Your task to perform on an android device: What's on my calendar today? Image 0: 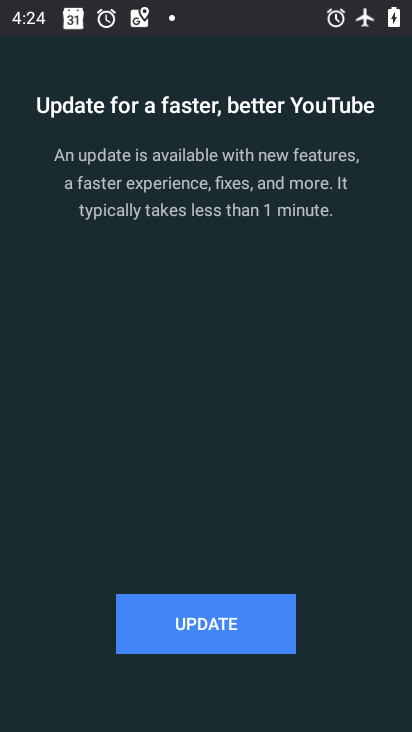
Step 0: press home button
Your task to perform on an android device: What's on my calendar today? Image 1: 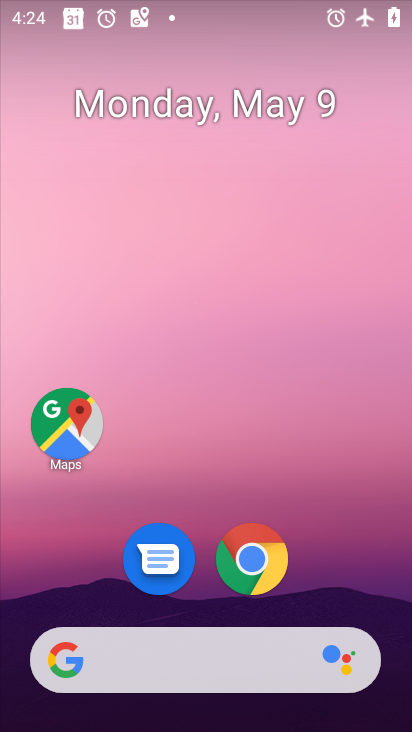
Step 1: drag from (220, 719) to (247, 316)
Your task to perform on an android device: What's on my calendar today? Image 2: 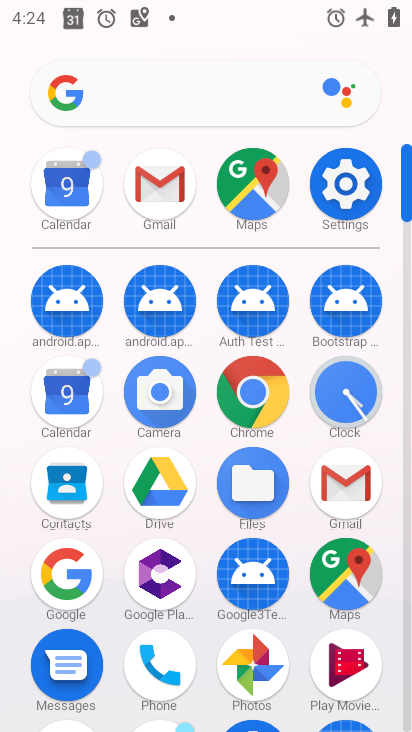
Step 2: click (66, 393)
Your task to perform on an android device: What's on my calendar today? Image 3: 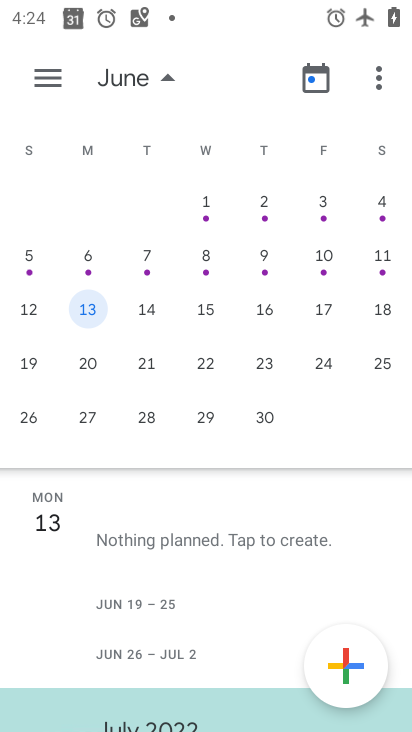
Step 3: drag from (62, 263) to (355, 290)
Your task to perform on an android device: What's on my calendar today? Image 4: 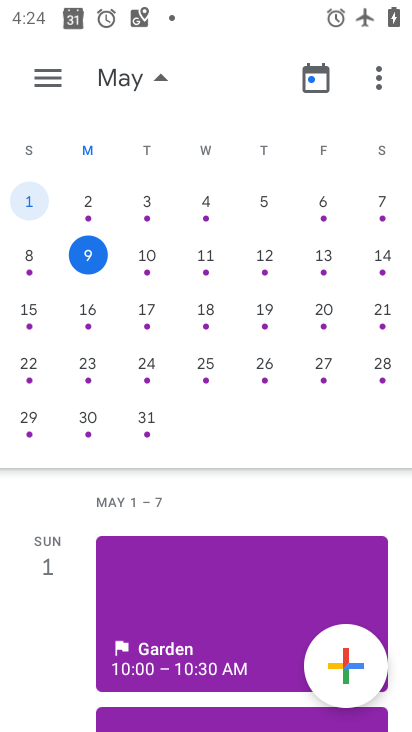
Step 4: click (85, 250)
Your task to perform on an android device: What's on my calendar today? Image 5: 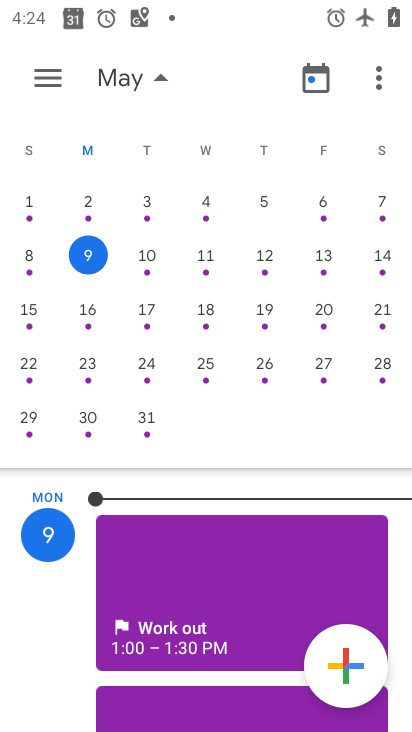
Step 5: click (92, 259)
Your task to perform on an android device: What's on my calendar today? Image 6: 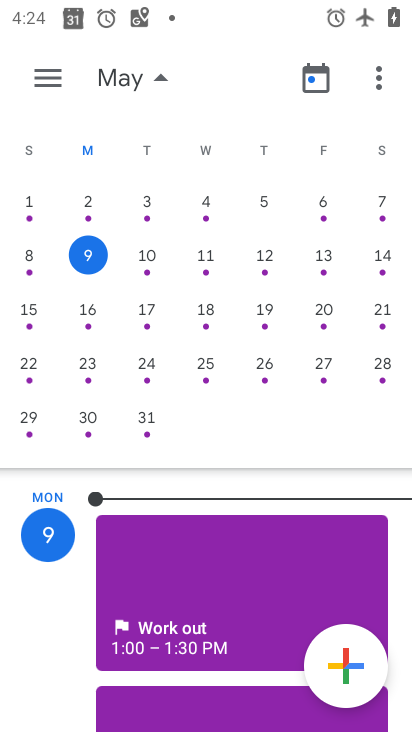
Step 6: click (163, 73)
Your task to perform on an android device: What's on my calendar today? Image 7: 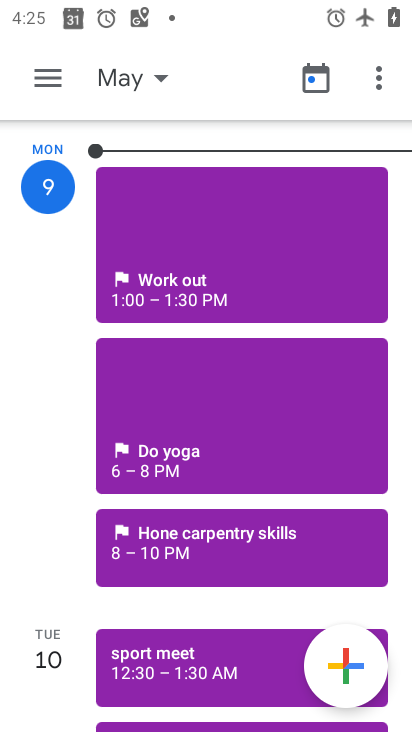
Step 7: task complete